Your task to perform on an android device: delete the emails in spam in the gmail app Image 0: 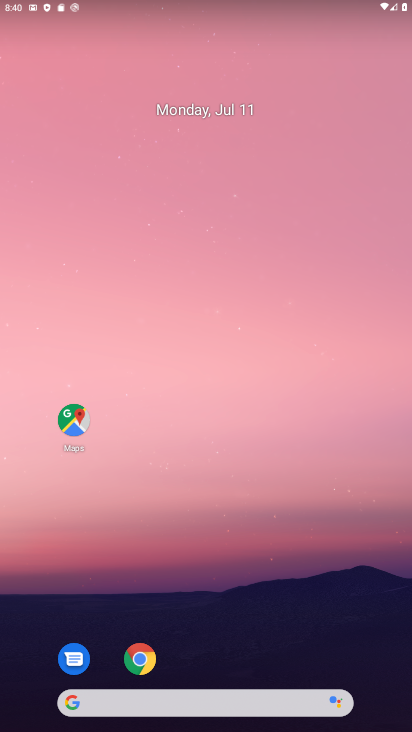
Step 0: drag from (218, 661) to (283, 61)
Your task to perform on an android device: delete the emails in spam in the gmail app Image 1: 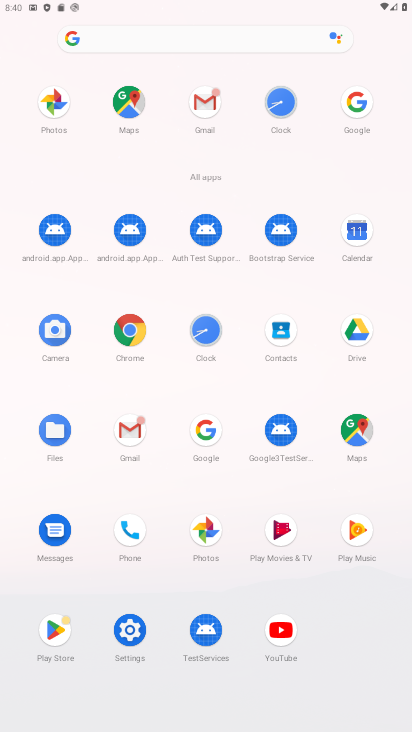
Step 1: click (137, 443)
Your task to perform on an android device: delete the emails in spam in the gmail app Image 2: 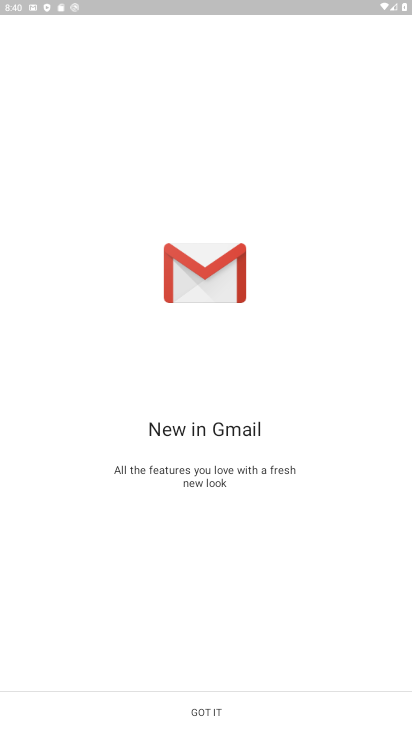
Step 2: click (197, 706)
Your task to perform on an android device: delete the emails in spam in the gmail app Image 3: 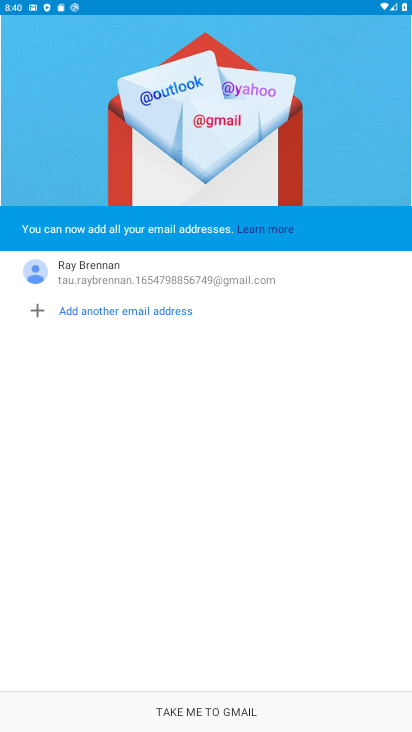
Step 3: click (211, 710)
Your task to perform on an android device: delete the emails in spam in the gmail app Image 4: 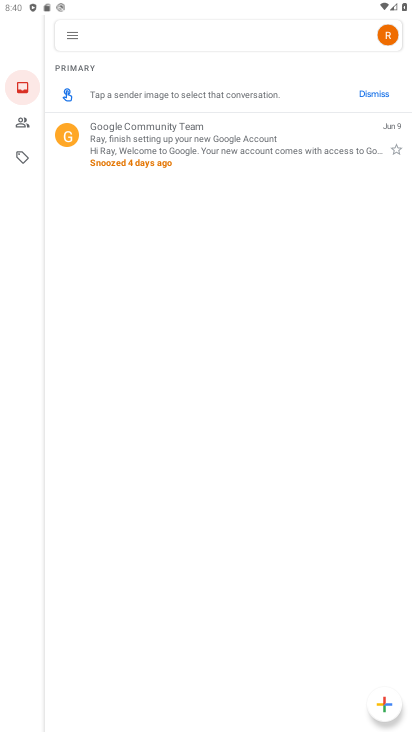
Step 4: click (82, 36)
Your task to perform on an android device: delete the emails in spam in the gmail app Image 5: 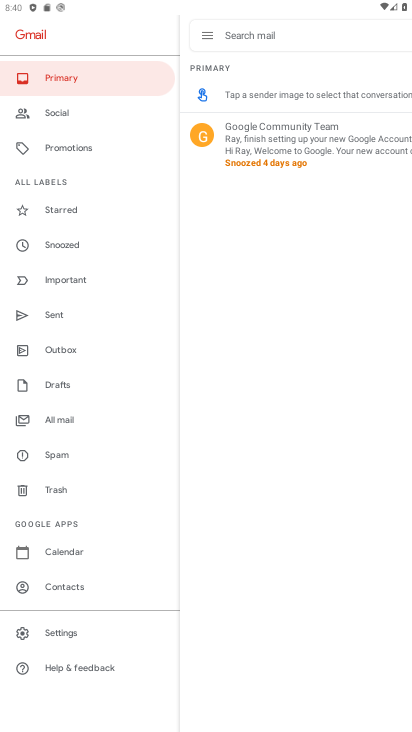
Step 5: click (81, 459)
Your task to perform on an android device: delete the emails in spam in the gmail app Image 6: 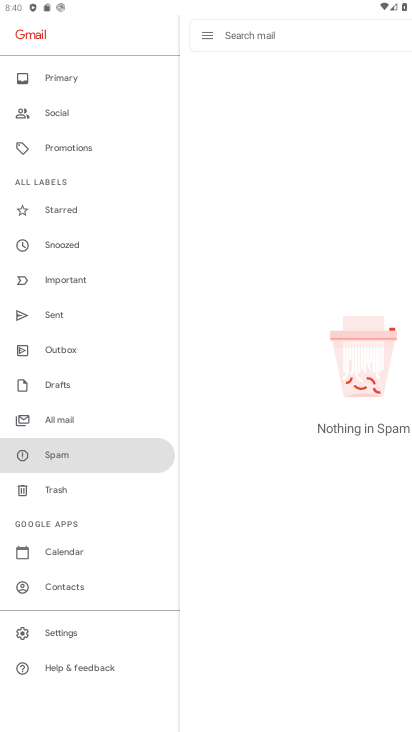
Step 6: task complete